Your task to perform on an android device: move a message to another label in the gmail app Image 0: 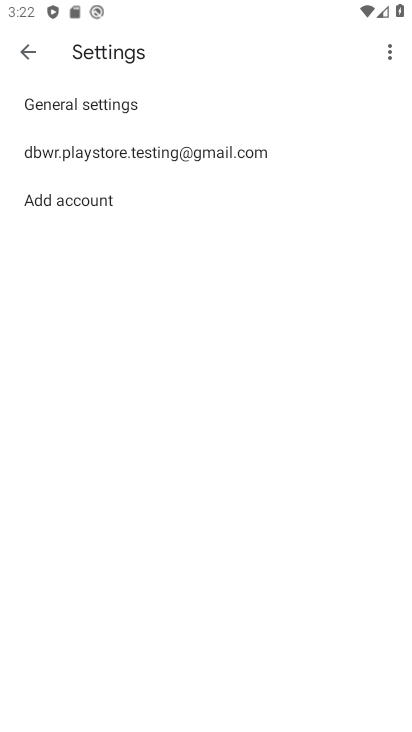
Step 0: press home button
Your task to perform on an android device: move a message to another label in the gmail app Image 1: 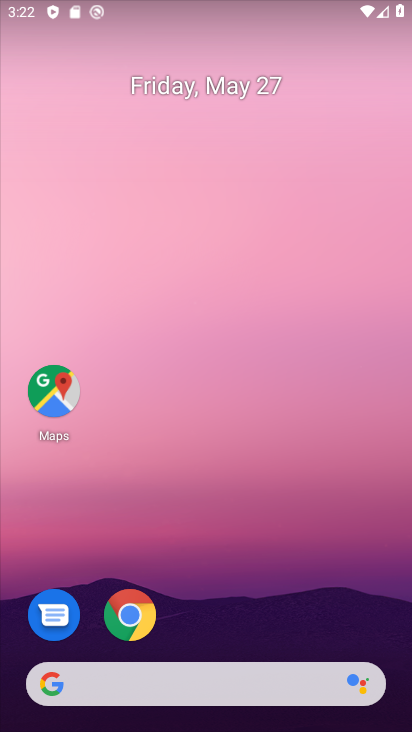
Step 1: drag from (139, 719) to (204, 40)
Your task to perform on an android device: move a message to another label in the gmail app Image 2: 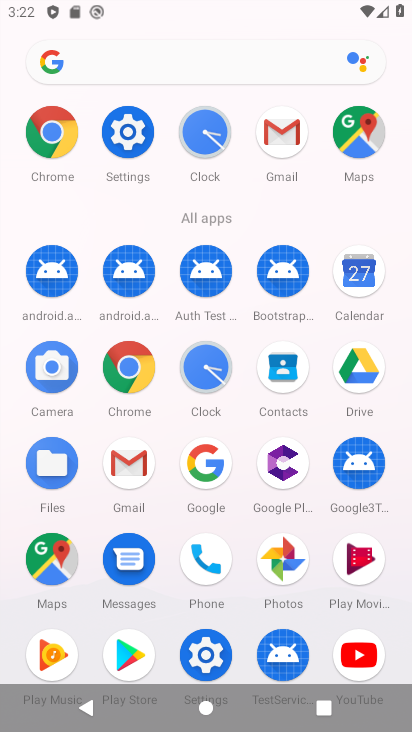
Step 2: click (268, 124)
Your task to perform on an android device: move a message to another label in the gmail app Image 3: 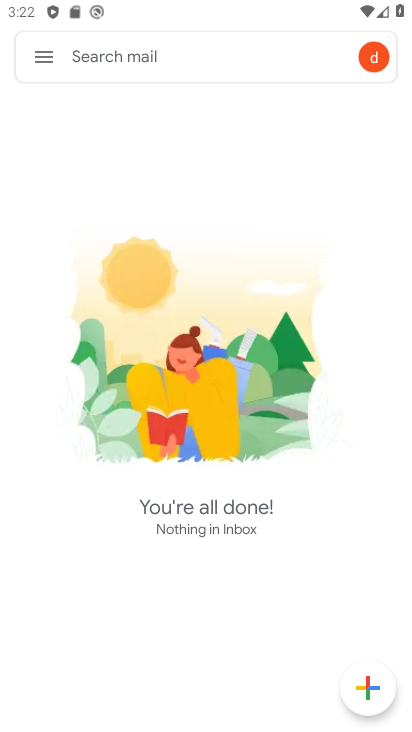
Step 3: click (47, 73)
Your task to perform on an android device: move a message to another label in the gmail app Image 4: 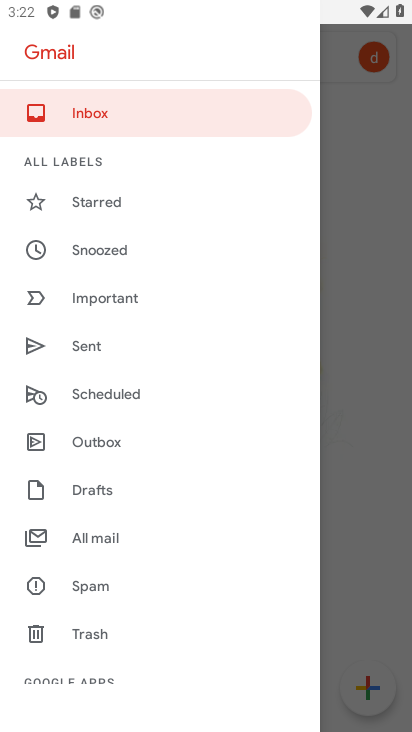
Step 4: click (58, 535)
Your task to perform on an android device: move a message to another label in the gmail app Image 5: 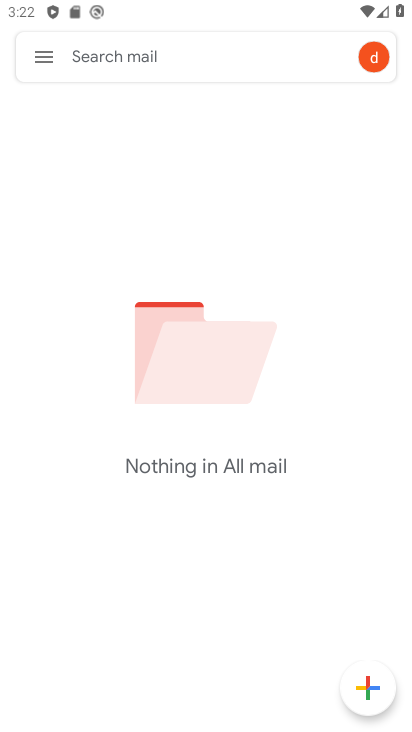
Step 5: task complete